Your task to perform on an android device: Open calendar and show me the fourth week of next month Image 0: 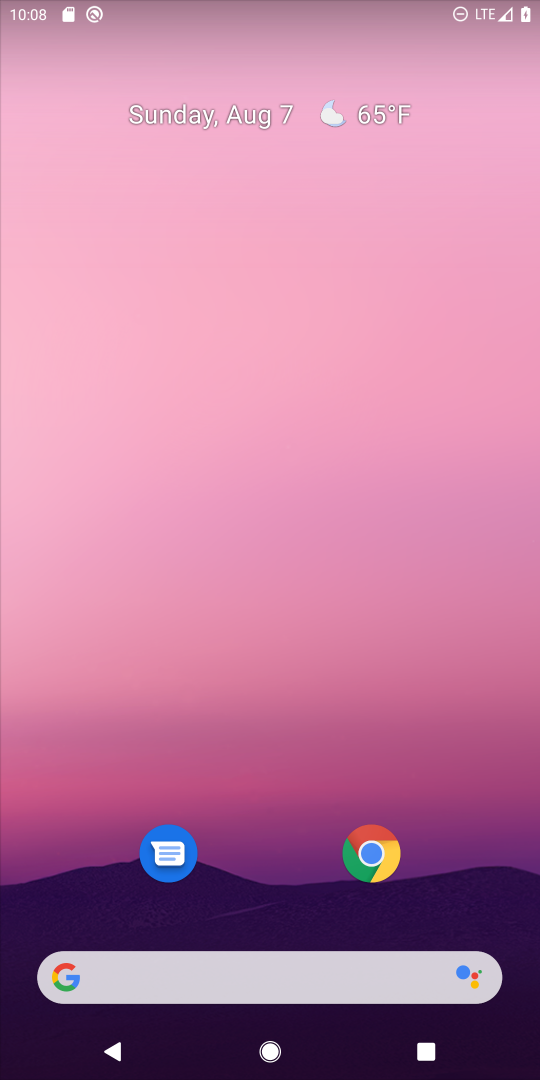
Step 0: drag from (243, 945) to (216, 440)
Your task to perform on an android device: Open calendar and show me the fourth week of next month Image 1: 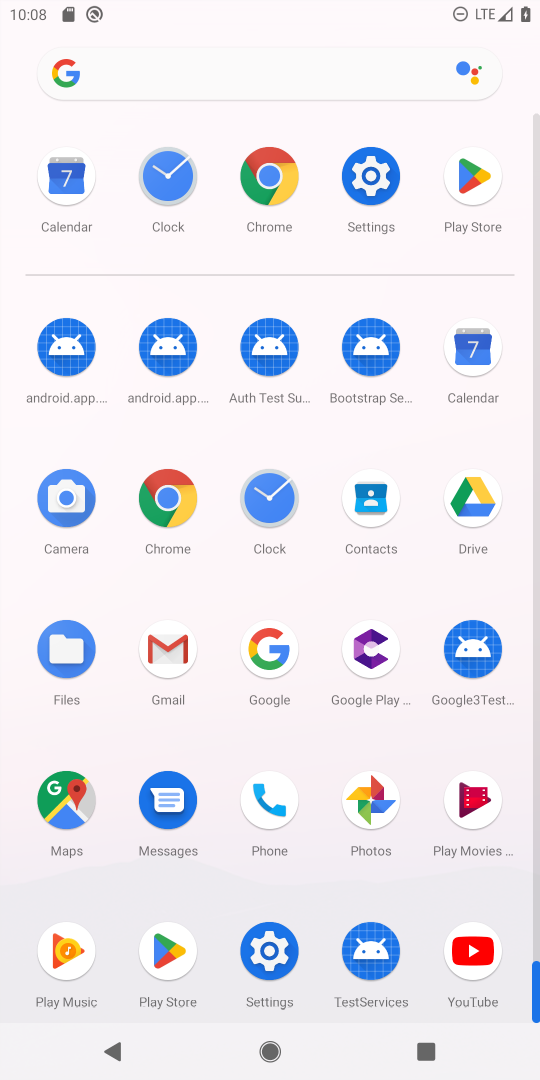
Step 1: click (468, 346)
Your task to perform on an android device: Open calendar and show me the fourth week of next month Image 2: 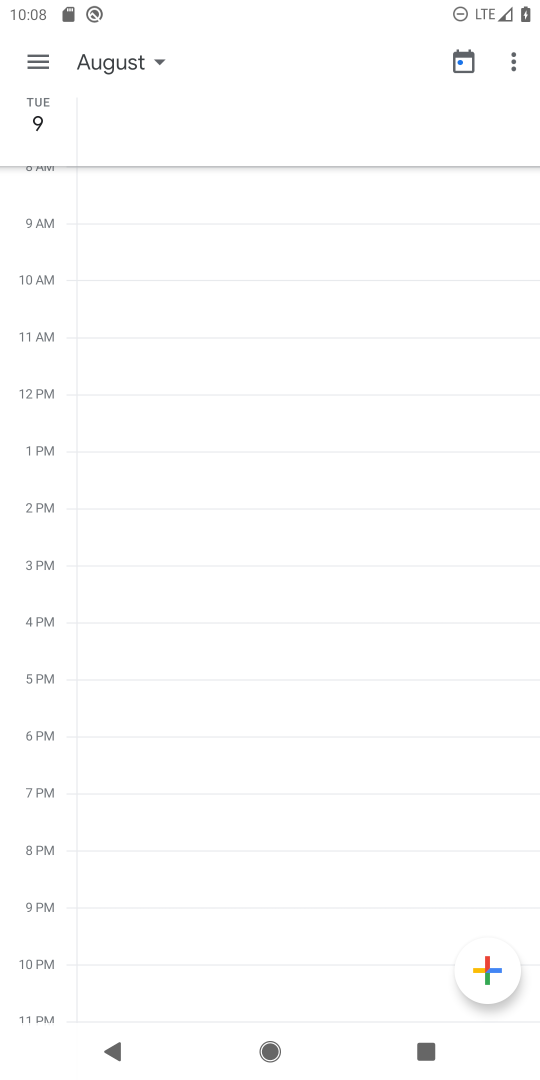
Step 2: click (33, 53)
Your task to perform on an android device: Open calendar and show me the fourth week of next month Image 3: 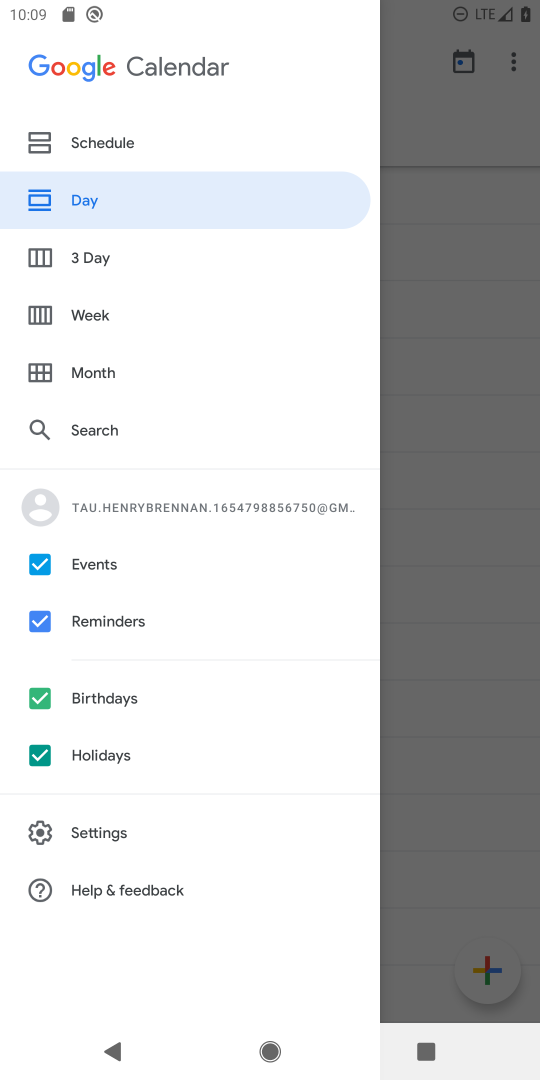
Step 3: click (59, 365)
Your task to perform on an android device: Open calendar and show me the fourth week of next month Image 4: 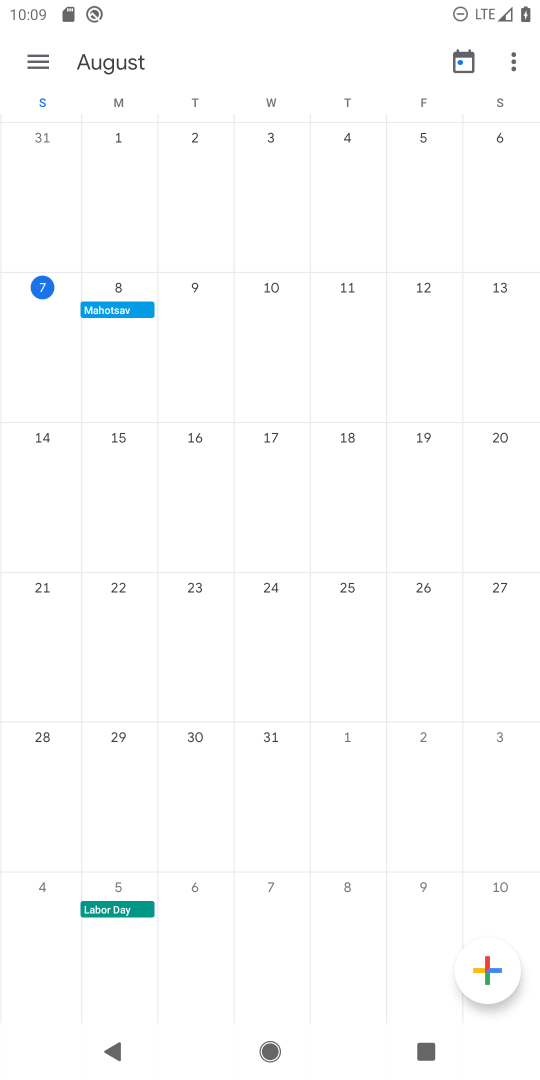
Step 4: click (42, 52)
Your task to perform on an android device: Open calendar and show me the fourth week of next month Image 5: 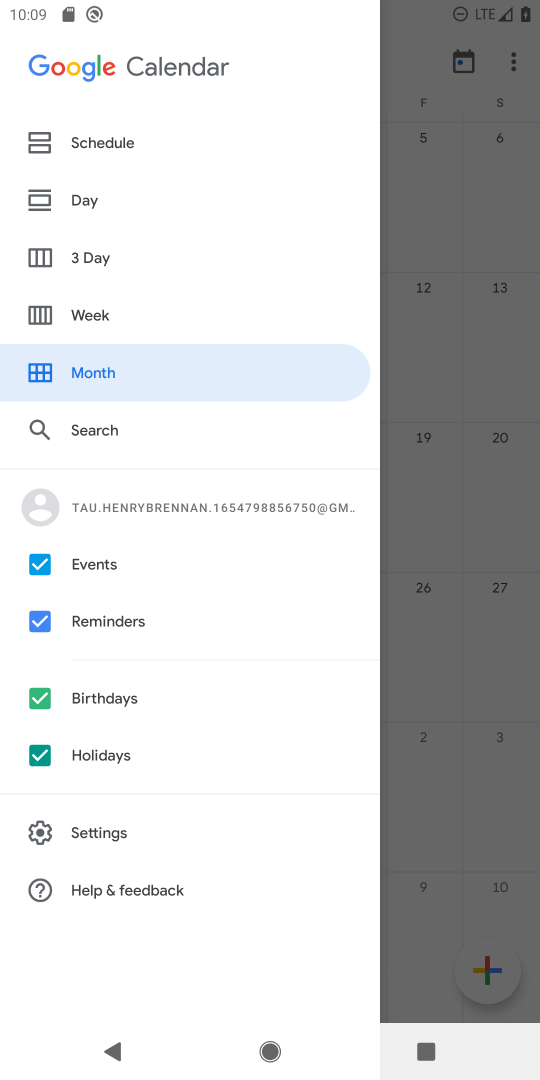
Step 5: click (131, 365)
Your task to perform on an android device: Open calendar and show me the fourth week of next month Image 6: 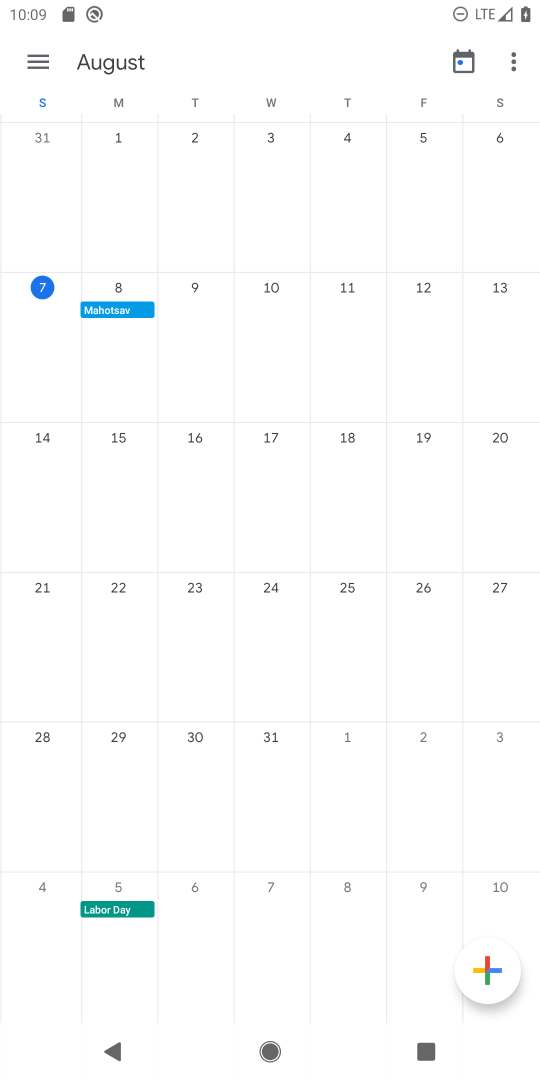
Step 6: drag from (508, 316) to (1, 55)
Your task to perform on an android device: Open calendar and show me the fourth week of next month Image 7: 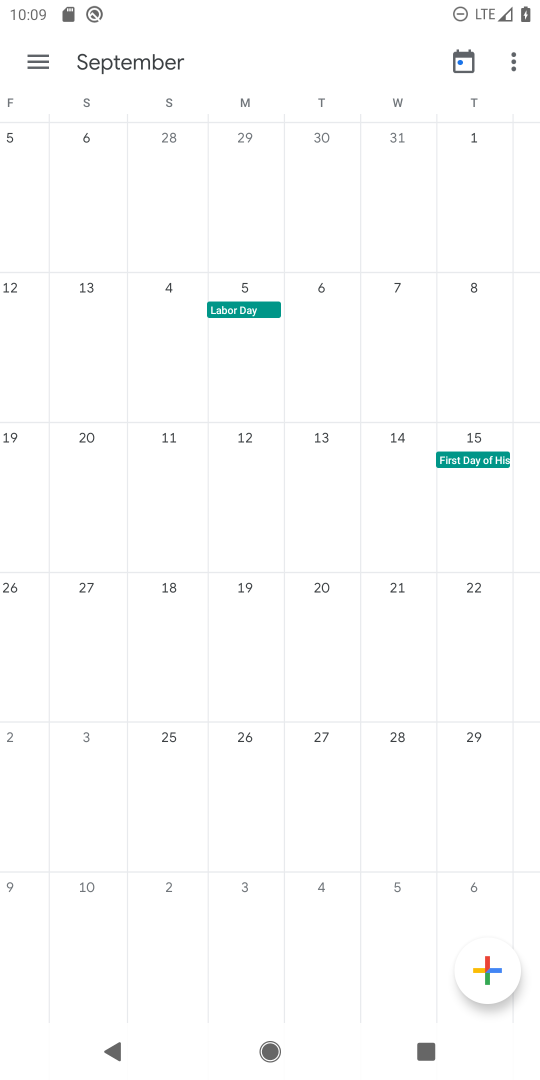
Step 7: click (32, 58)
Your task to perform on an android device: Open calendar and show me the fourth week of next month Image 8: 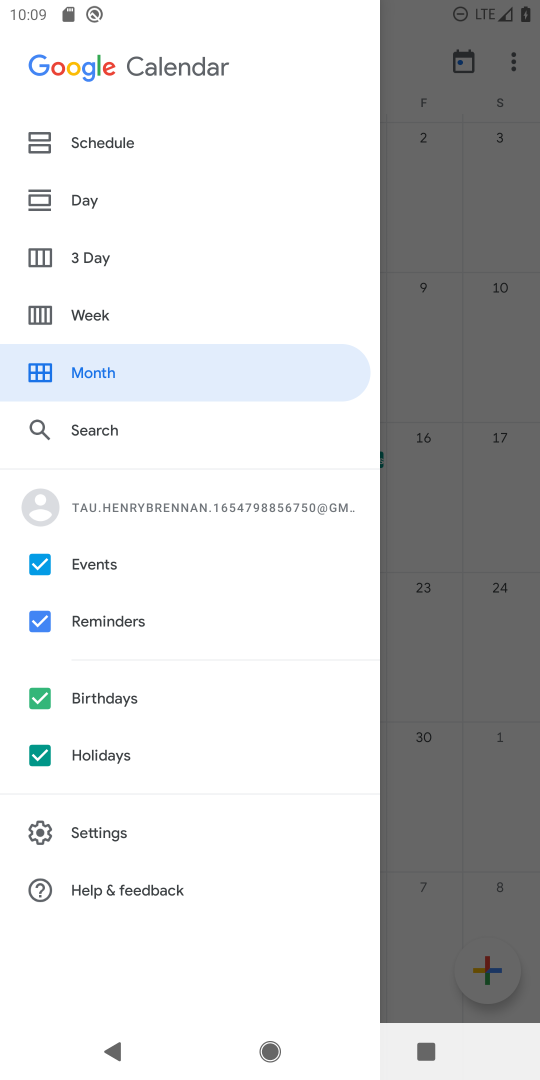
Step 8: click (103, 317)
Your task to perform on an android device: Open calendar and show me the fourth week of next month Image 9: 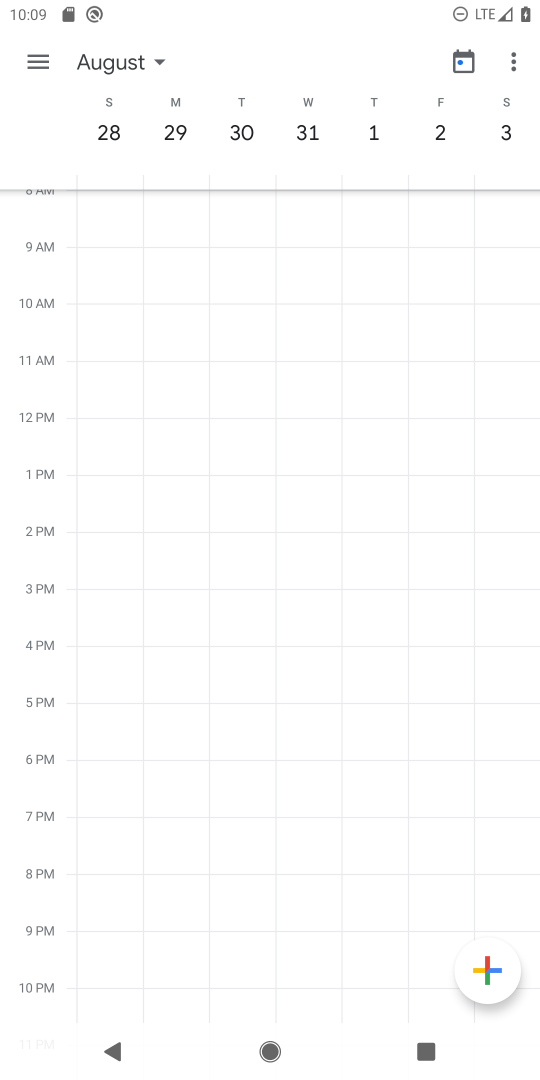
Step 9: task complete